Your task to perform on an android device: toggle airplane mode Image 0: 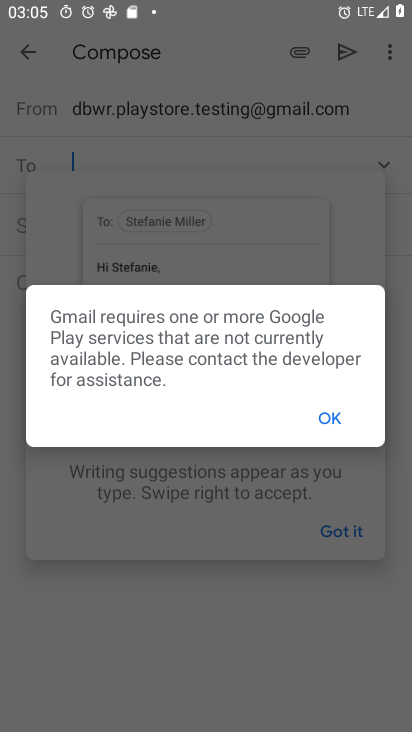
Step 0: press home button
Your task to perform on an android device: toggle airplane mode Image 1: 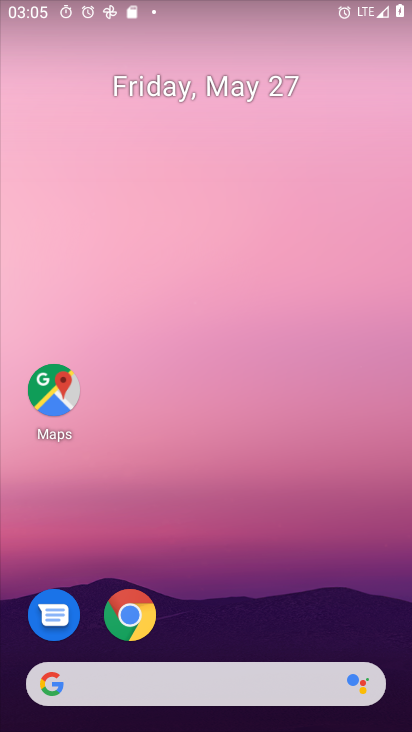
Step 1: drag from (317, 626) to (332, 157)
Your task to perform on an android device: toggle airplane mode Image 2: 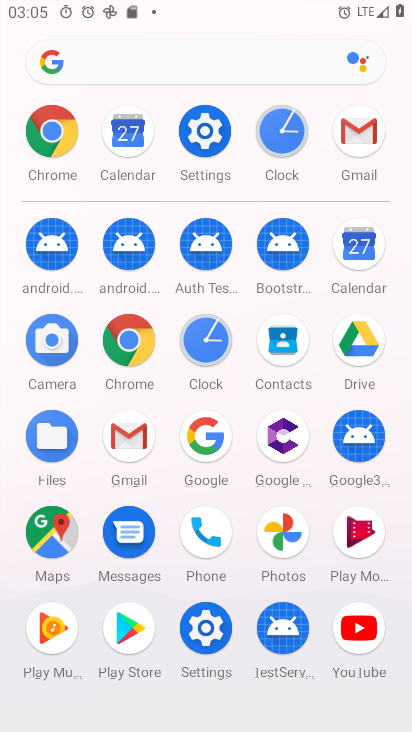
Step 2: click (215, 634)
Your task to perform on an android device: toggle airplane mode Image 3: 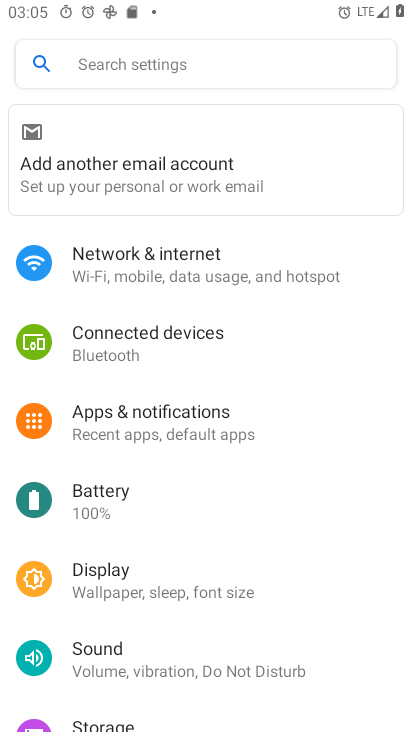
Step 3: drag from (350, 582) to (355, 473)
Your task to perform on an android device: toggle airplane mode Image 4: 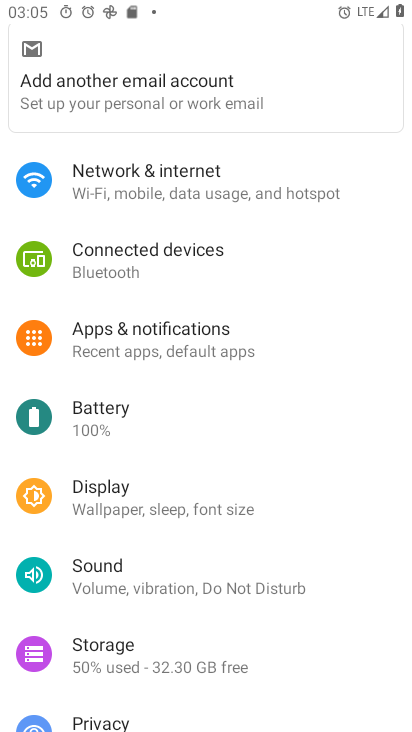
Step 4: drag from (353, 617) to (352, 496)
Your task to perform on an android device: toggle airplane mode Image 5: 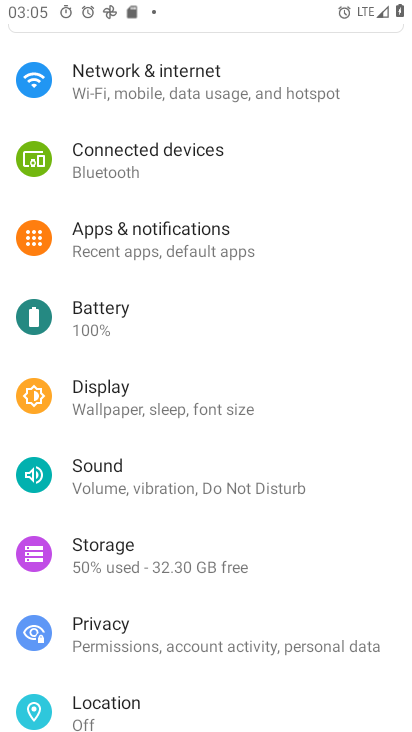
Step 5: drag from (339, 624) to (339, 522)
Your task to perform on an android device: toggle airplane mode Image 6: 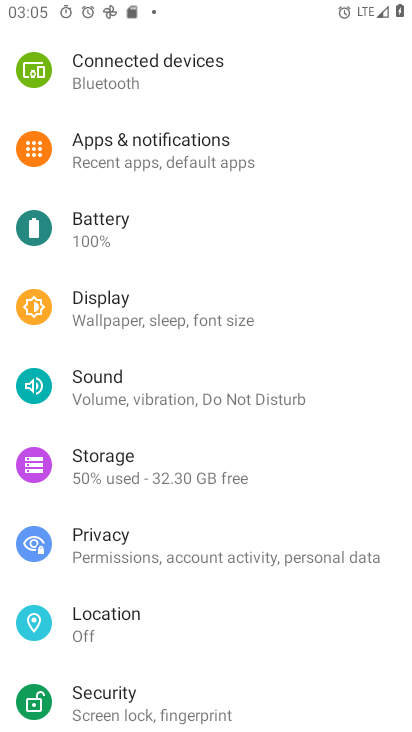
Step 6: drag from (338, 611) to (339, 496)
Your task to perform on an android device: toggle airplane mode Image 7: 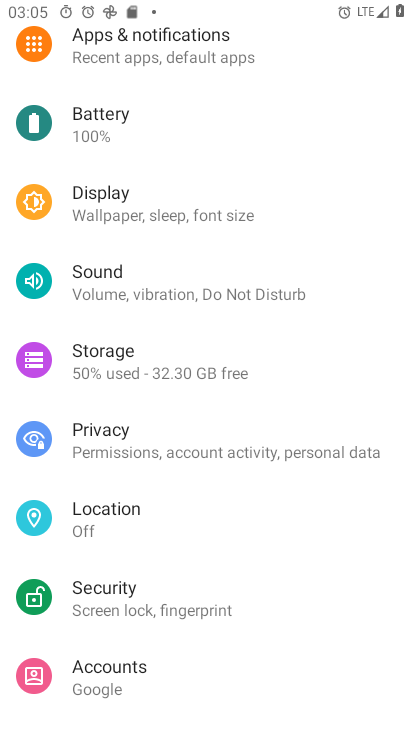
Step 7: drag from (332, 632) to (343, 504)
Your task to perform on an android device: toggle airplane mode Image 8: 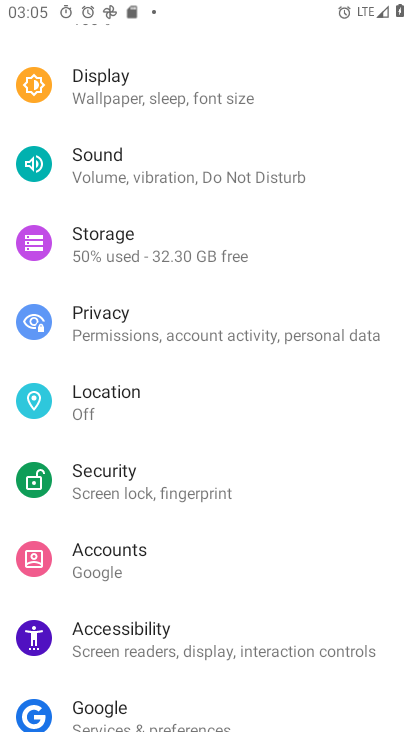
Step 8: drag from (357, 688) to (362, 565)
Your task to perform on an android device: toggle airplane mode Image 9: 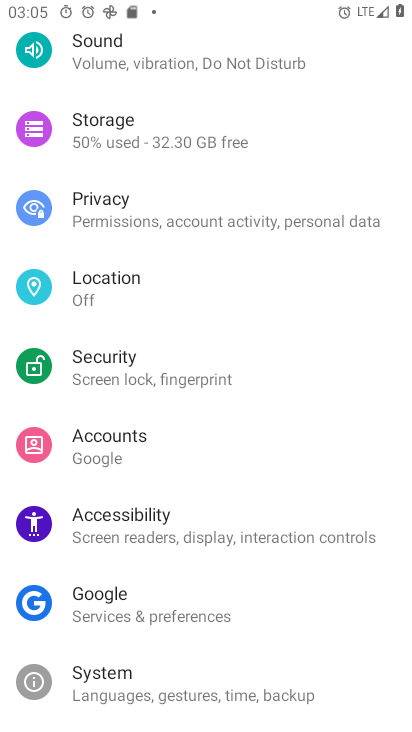
Step 9: drag from (350, 669) to (349, 544)
Your task to perform on an android device: toggle airplane mode Image 10: 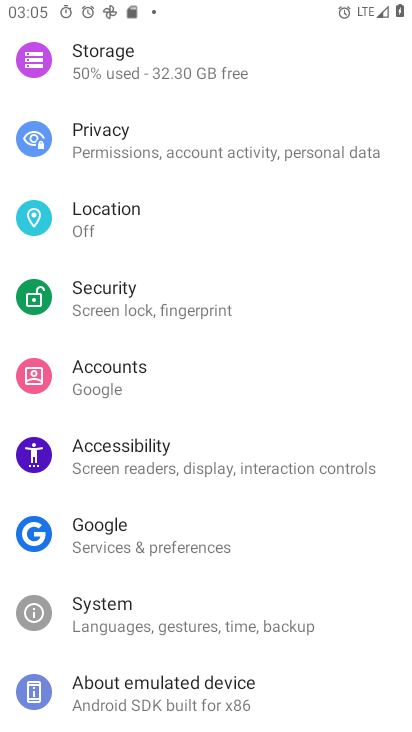
Step 10: drag from (345, 511) to (352, 631)
Your task to perform on an android device: toggle airplane mode Image 11: 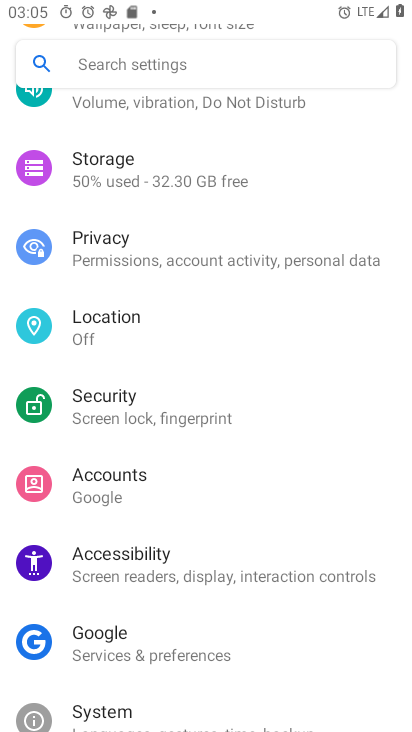
Step 11: drag from (223, 317) to (238, 425)
Your task to perform on an android device: toggle airplane mode Image 12: 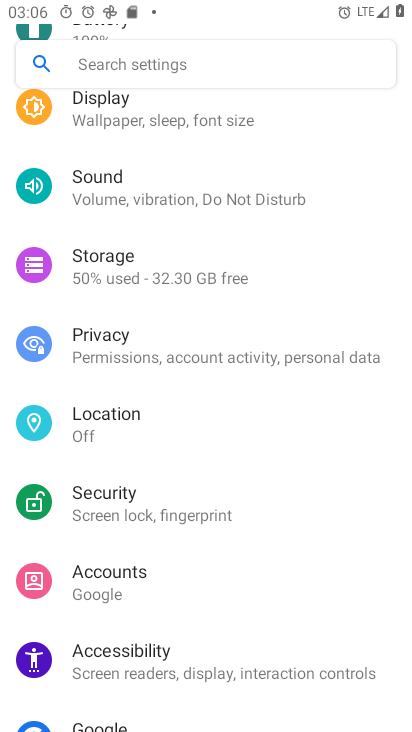
Step 12: drag from (271, 256) to (275, 386)
Your task to perform on an android device: toggle airplane mode Image 13: 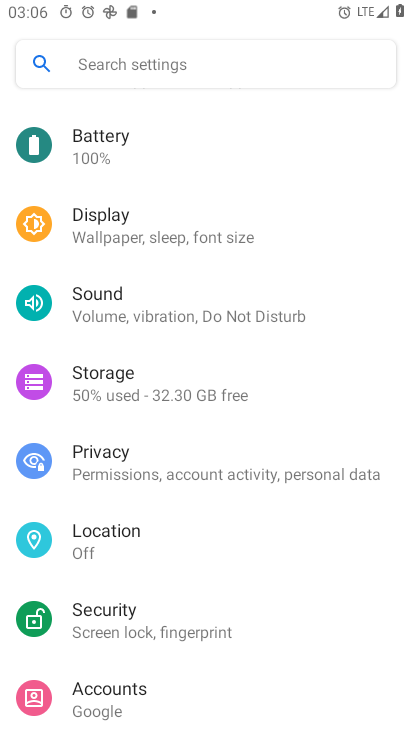
Step 13: drag from (278, 256) to (284, 360)
Your task to perform on an android device: toggle airplane mode Image 14: 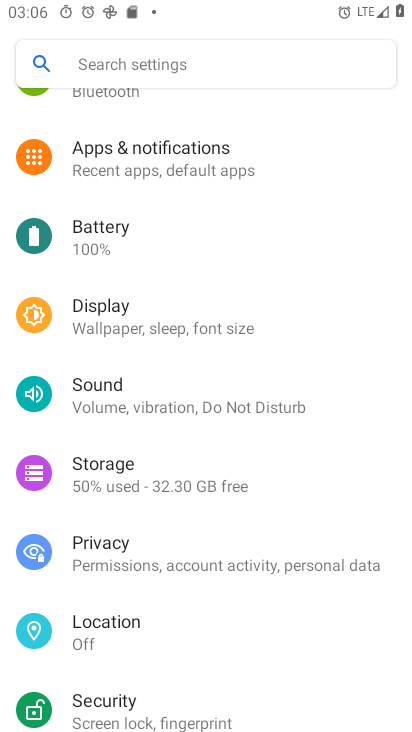
Step 14: drag from (283, 229) to (284, 355)
Your task to perform on an android device: toggle airplane mode Image 15: 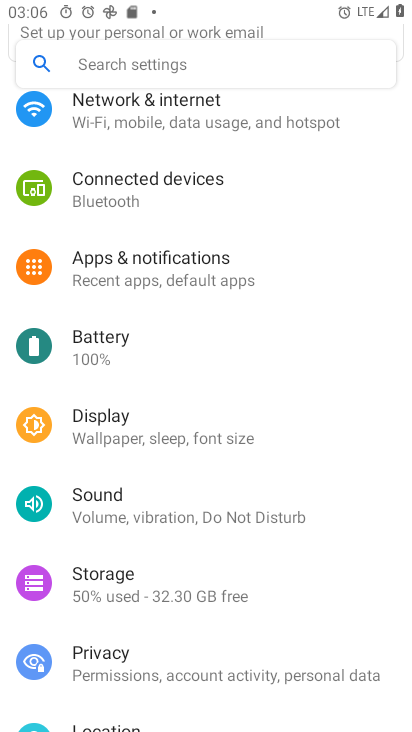
Step 15: drag from (274, 222) to (271, 318)
Your task to perform on an android device: toggle airplane mode Image 16: 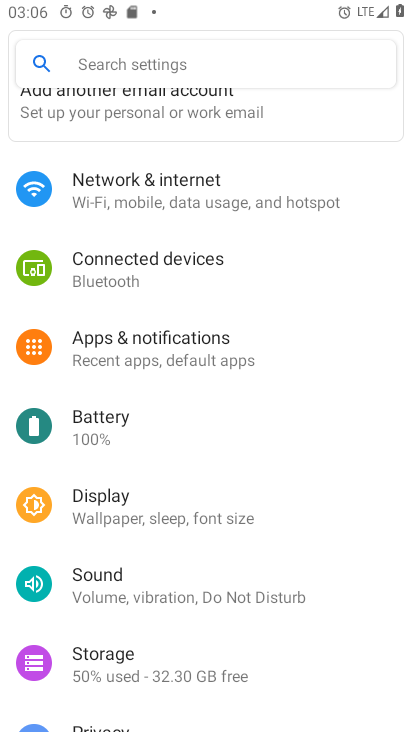
Step 16: drag from (267, 191) to (265, 337)
Your task to perform on an android device: toggle airplane mode Image 17: 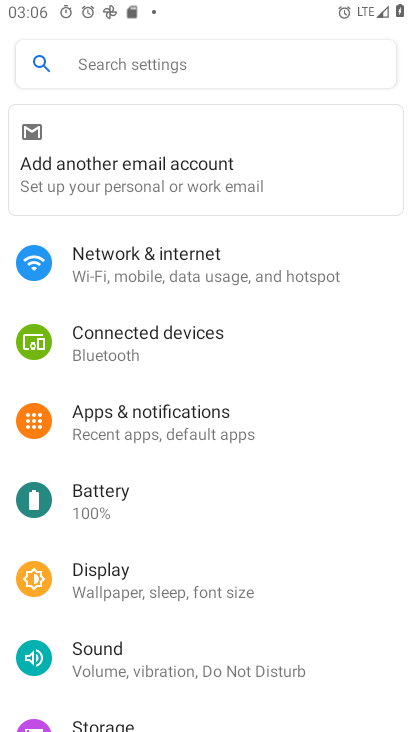
Step 17: click (265, 277)
Your task to perform on an android device: toggle airplane mode Image 18: 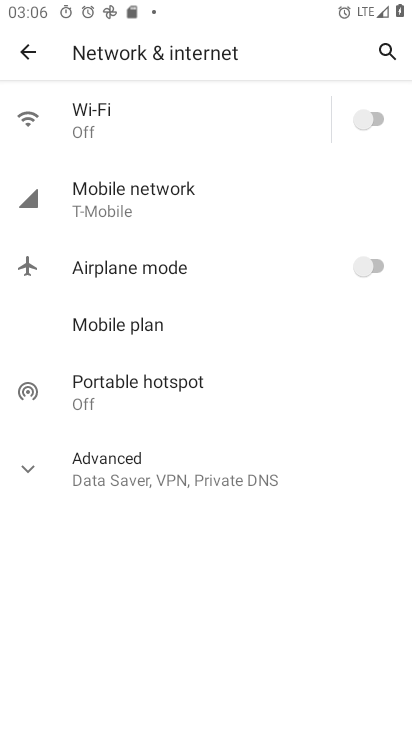
Step 18: click (377, 269)
Your task to perform on an android device: toggle airplane mode Image 19: 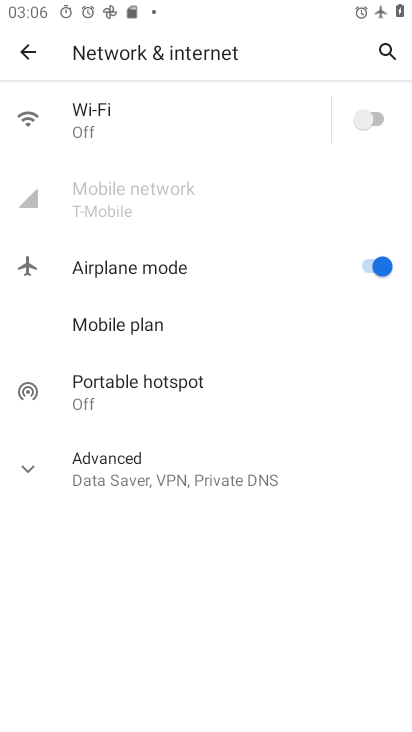
Step 19: task complete